Your task to perform on an android device: Go to Google Image 0: 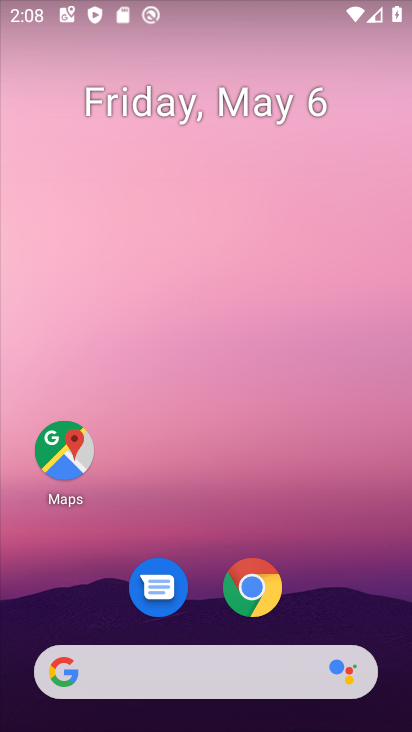
Step 0: drag from (328, 524) to (347, 91)
Your task to perform on an android device: Go to Google Image 1: 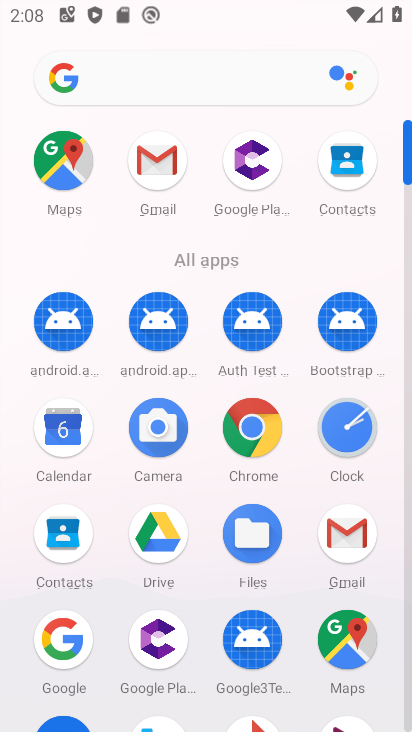
Step 1: click (63, 640)
Your task to perform on an android device: Go to Google Image 2: 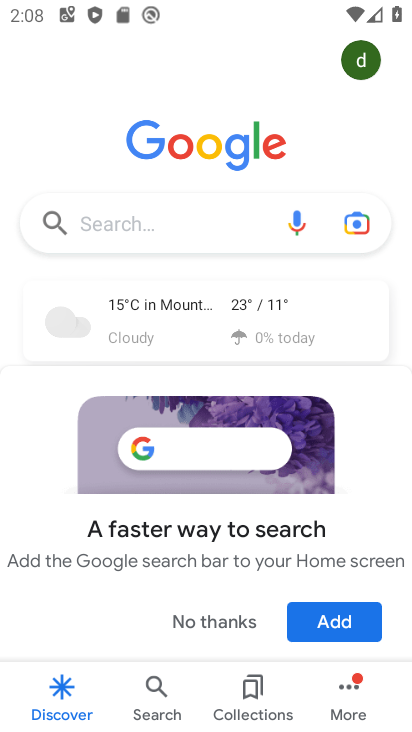
Step 2: task complete